Your task to perform on an android device: open the mobile data screen to see how much data has been used Image 0: 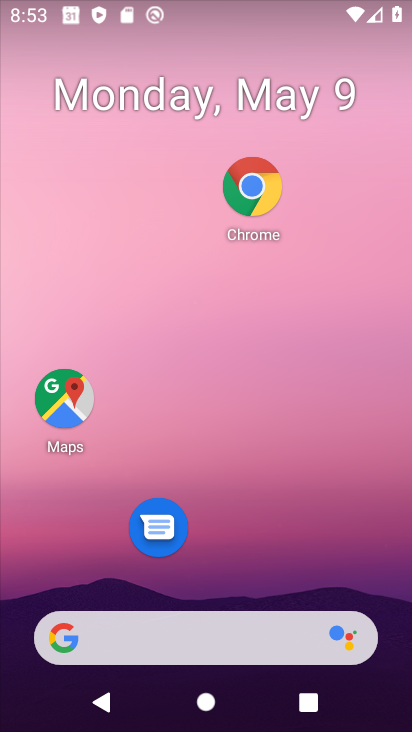
Step 0: drag from (210, 581) to (236, 88)
Your task to perform on an android device: open the mobile data screen to see how much data has been used Image 1: 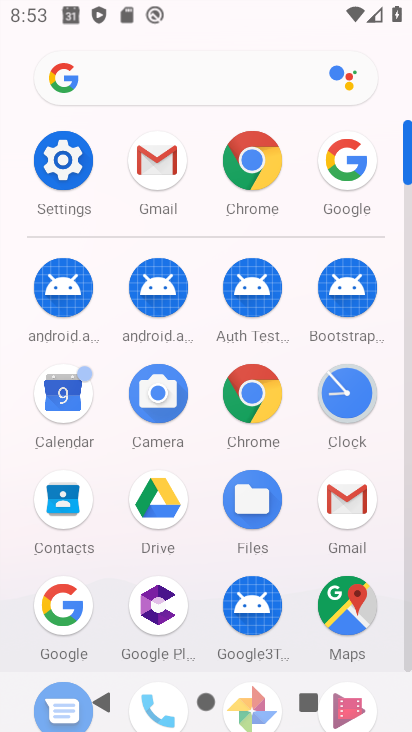
Step 1: click (57, 155)
Your task to perform on an android device: open the mobile data screen to see how much data has been used Image 2: 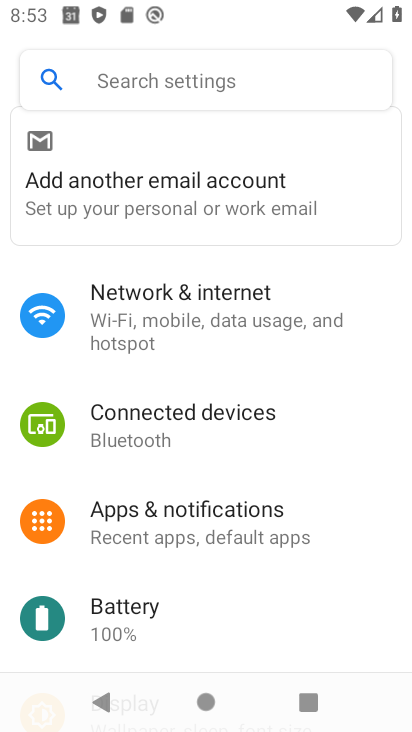
Step 2: click (187, 338)
Your task to perform on an android device: open the mobile data screen to see how much data has been used Image 3: 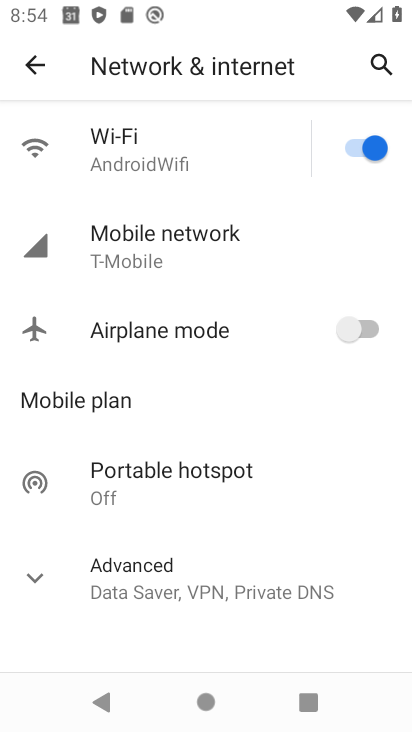
Step 3: click (175, 250)
Your task to perform on an android device: open the mobile data screen to see how much data has been used Image 4: 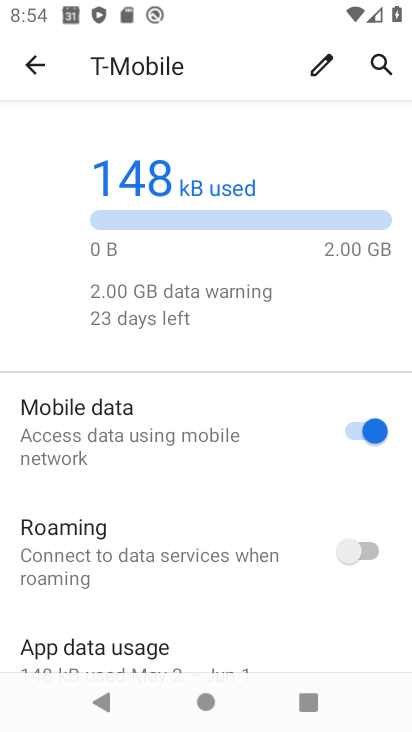
Step 4: click (188, 642)
Your task to perform on an android device: open the mobile data screen to see how much data has been used Image 5: 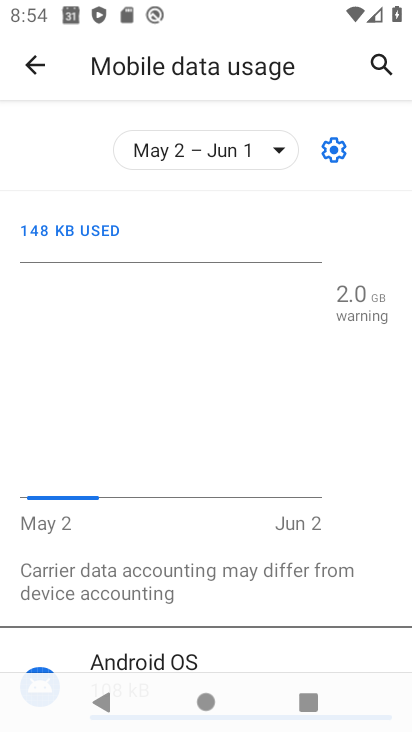
Step 5: task complete